Your task to perform on an android device: Open battery settings Image 0: 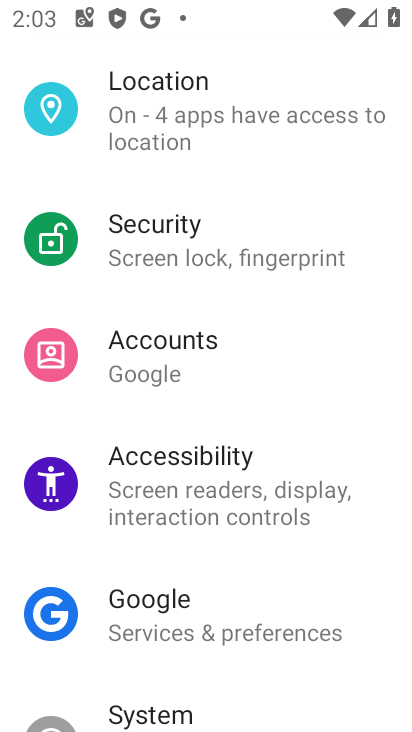
Step 0: drag from (226, 168) to (184, 663)
Your task to perform on an android device: Open battery settings Image 1: 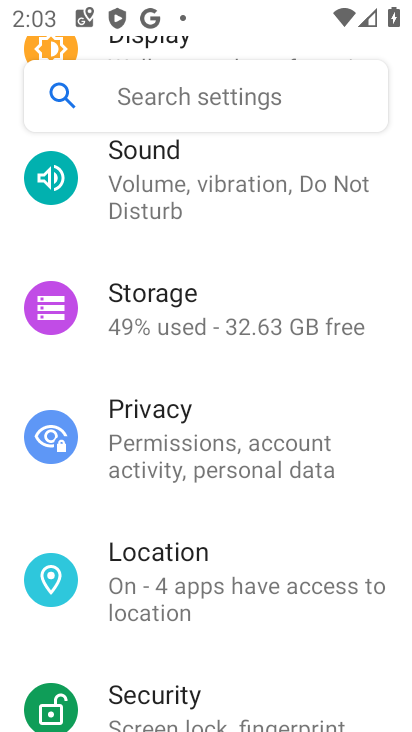
Step 1: drag from (209, 207) to (178, 662)
Your task to perform on an android device: Open battery settings Image 2: 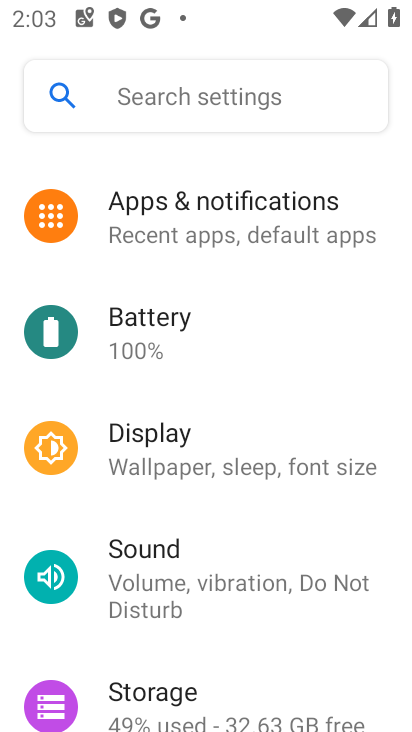
Step 2: click (142, 320)
Your task to perform on an android device: Open battery settings Image 3: 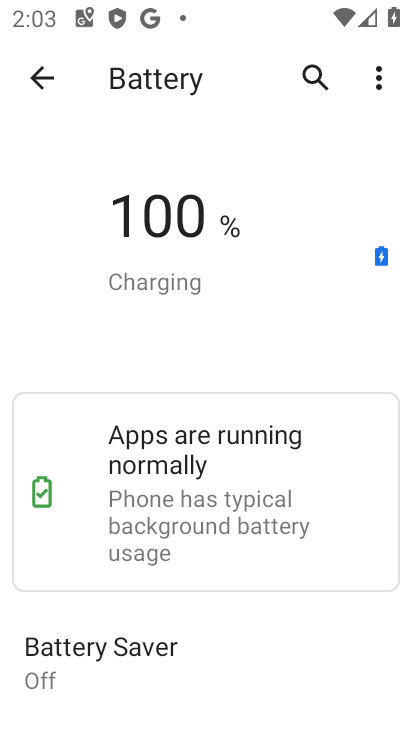
Step 3: task complete